Your task to perform on an android device: Go to network settings Image 0: 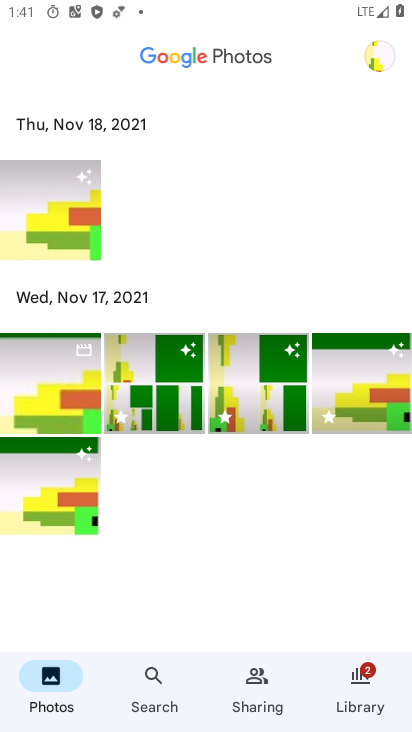
Step 0: press home button
Your task to perform on an android device: Go to network settings Image 1: 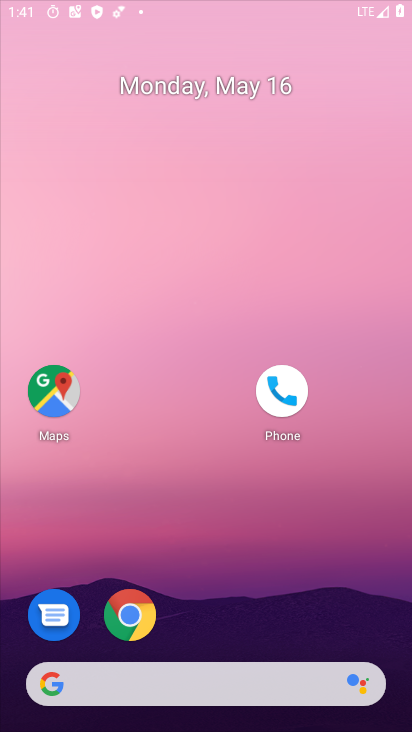
Step 1: drag from (243, 611) to (271, 7)
Your task to perform on an android device: Go to network settings Image 2: 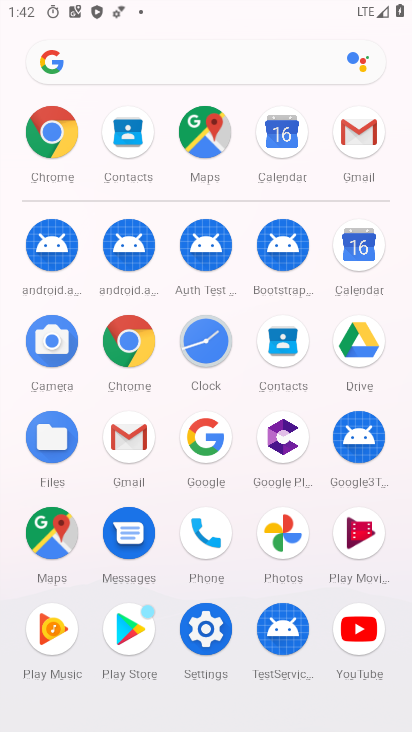
Step 2: click (324, 161)
Your task to perform on an android device: Go to network settings Image 3: 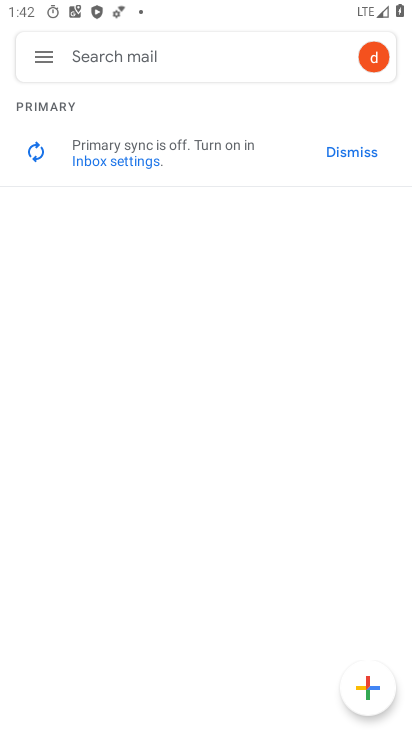
Step 3: press home button
Your task to perform on an android device: Go to network settings Image 4: 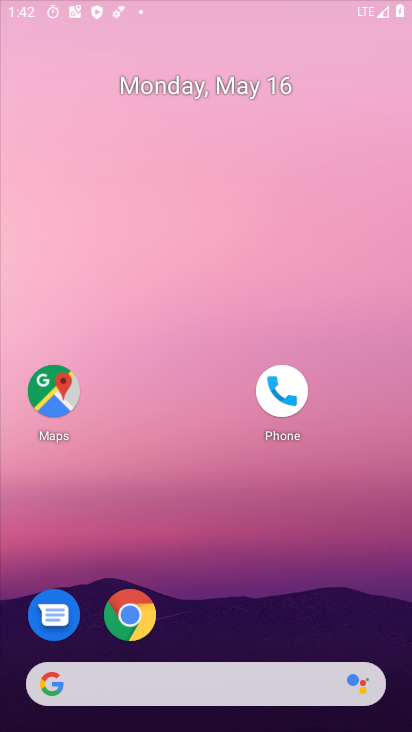
Step 4: drag from (170, 699) to (282, 9)
Your task to perform on an android device: Go to network settings Image 5: 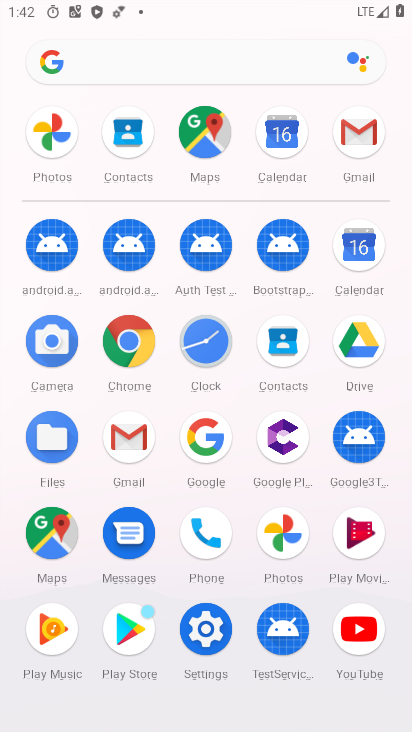
Step 5: click (206, 628)
Your task to perform on an android device: Go to network settings Image 6: 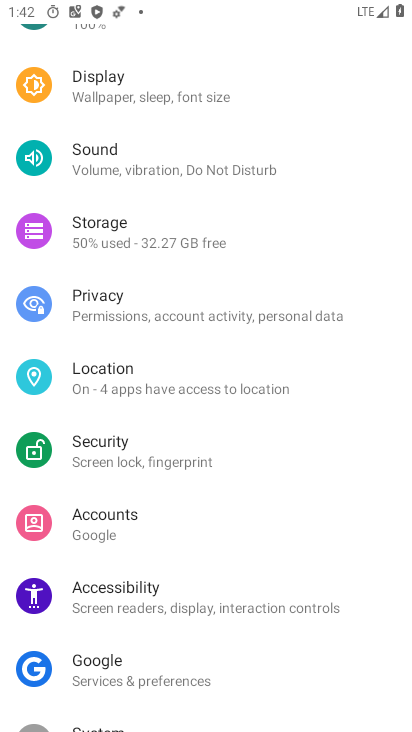
Step 6: task complete